Your task to perform on an android device: Open eBay Image 0: 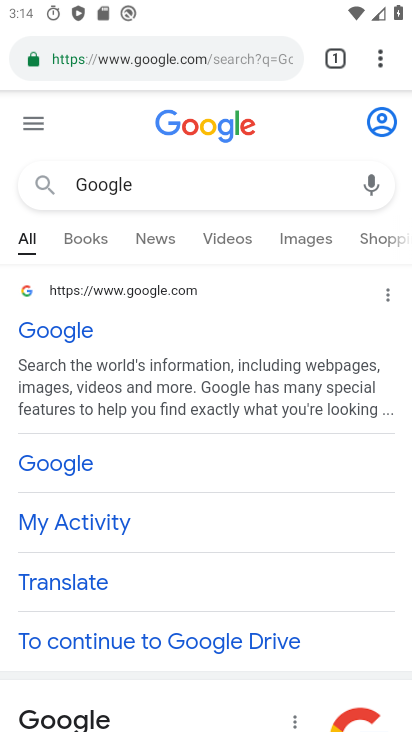
Step 0: press back button
Your task to perform on an android device: Open eBay Image 1: 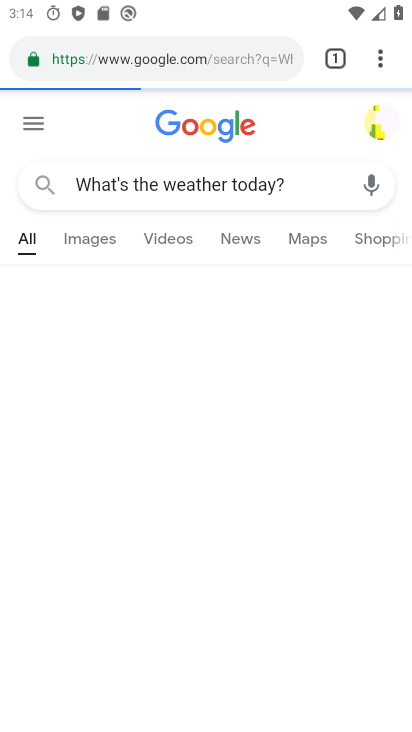
Step 1: click (191, 62)
Your task to perform on an android device: Open eBay Image 2: 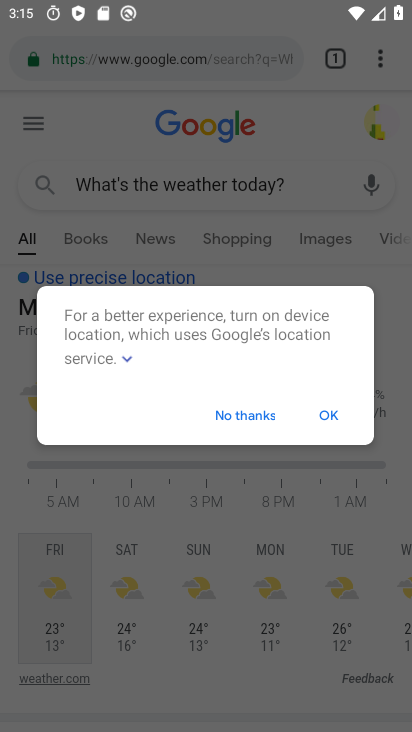
Step 2: click (210, 54)
Your task to perform on an android device: Open eBay Image 3: 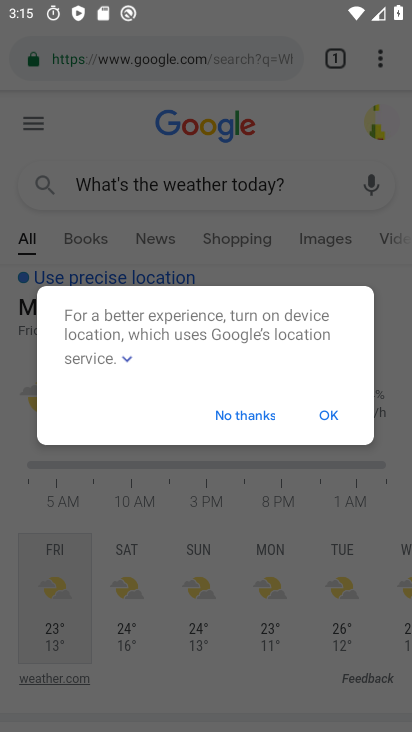
Step 3: click (244, 410)
Your task to perform on an android device: Open eBay Image 4: 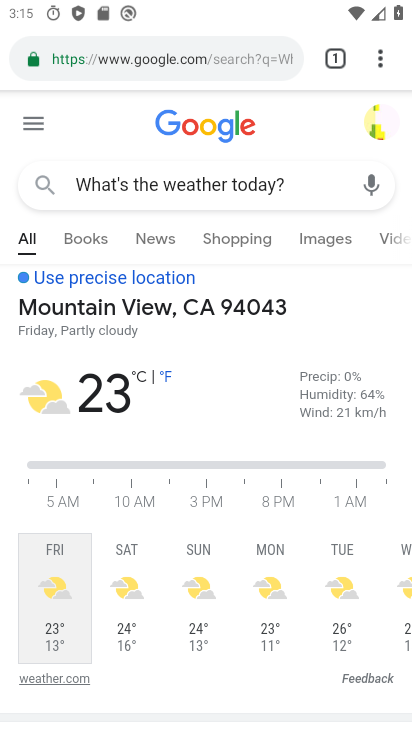
Step 4: click (178, 54)
Your task to perform on an android device: Open eBay Image 5: 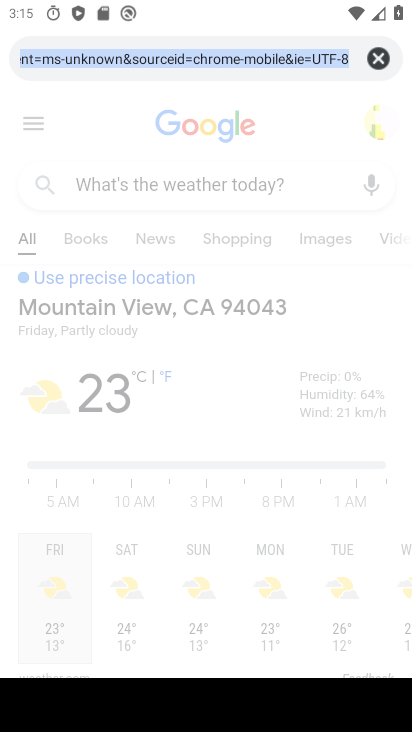
Step 5: click (372, 55)
Your task to perform on an android device: Open eBay Image 6: 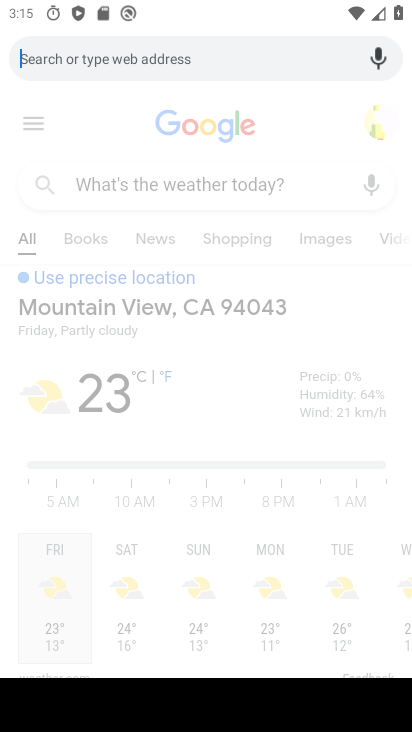
Step 6: type "eBay"
Your task to perform on an android device: Open eBay Image 7: 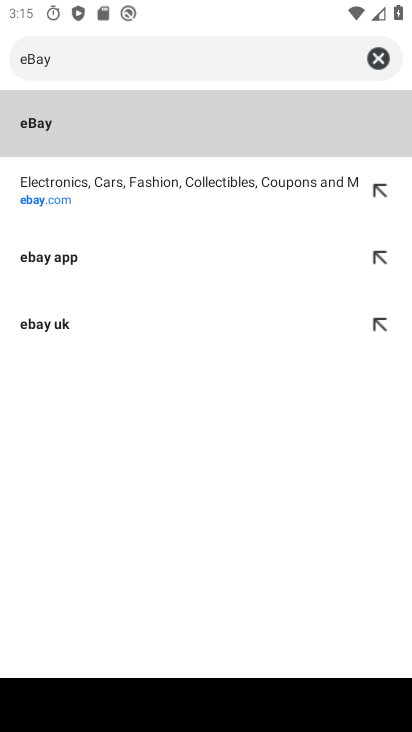
Step 7: click (79, 196)
Your task to perform on an android device: Open eBay Image 8: 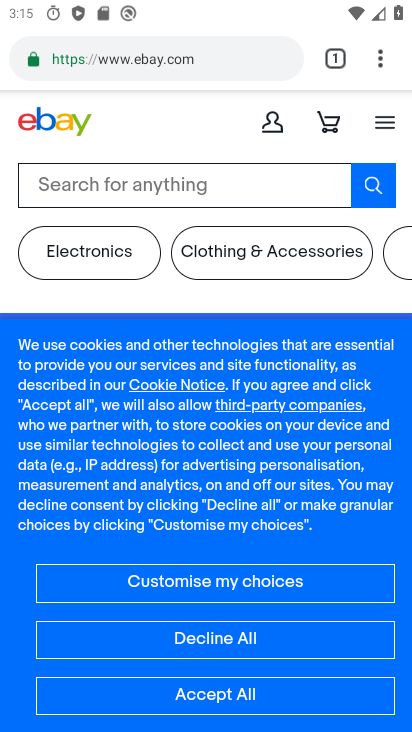
Step 8: task complete